Your task to perform on an android device: toggle airplane mode Image 0: 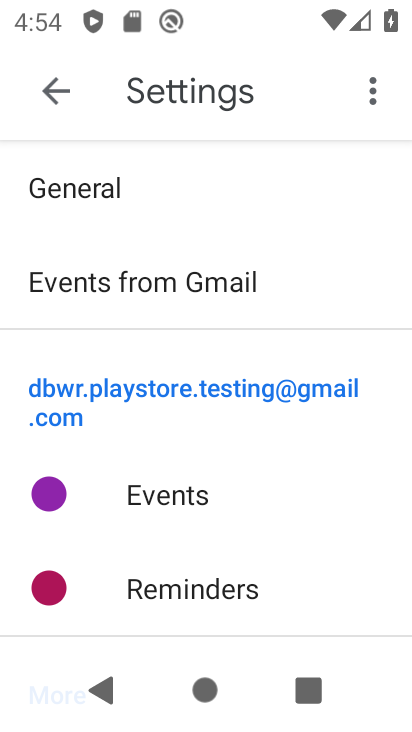
Step 0: press back button
Your task to perform on an android device: toggle airplane mode Image 1: 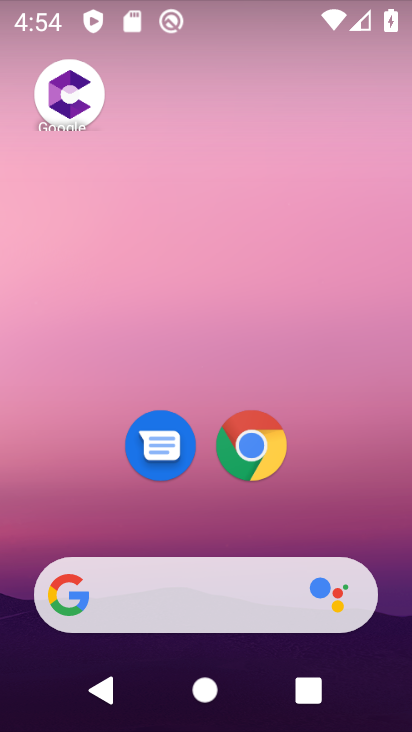
Step 1: drag from (355, 515) to (245, 155)
Your task to perform on an android device: toggle airplane mode Image 2: 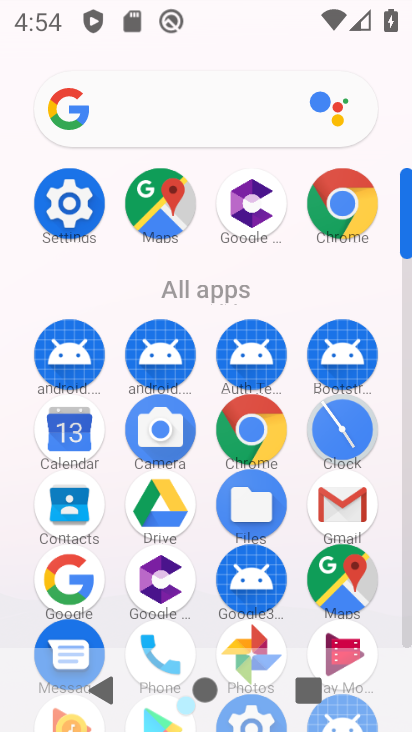
Step 2: drag from (310, 496) to (268, 236)
Your task to perform on an android device: toggle airplane mode Image 3: 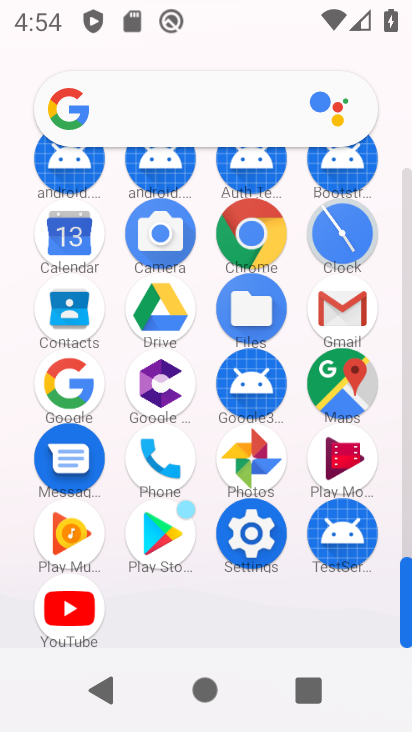
Step 3: click (259, 528)
Your task to perform on an android device: toggle airplane mode Image 4: 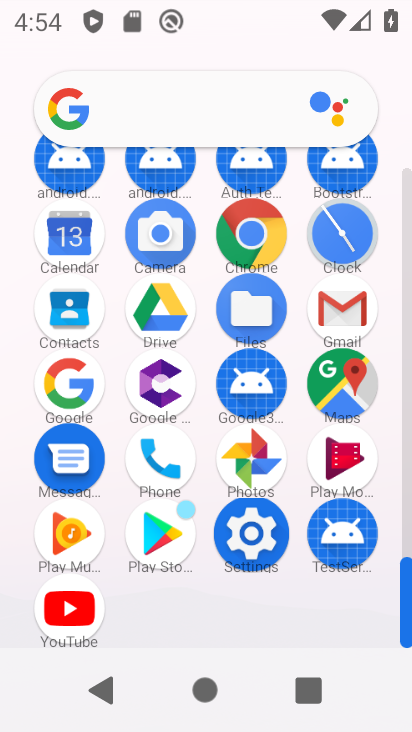
Step 4: click (259, 528)
Your task to perform on an android device: toggle airplane mode Image 5: 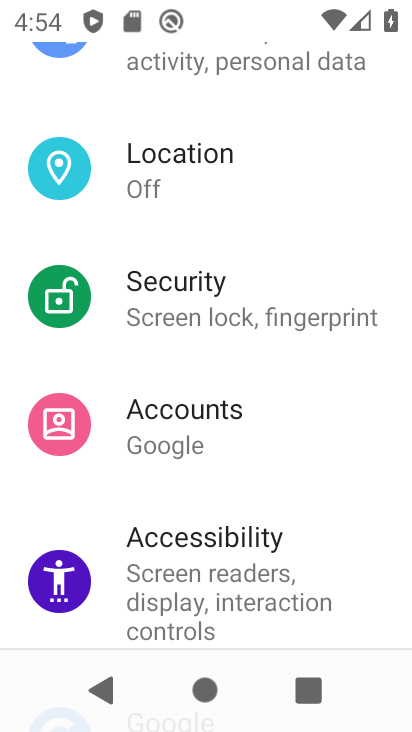
Step 5: click (259, 528)
Your task to perform on an android device: toggle airplane mode Image 6: 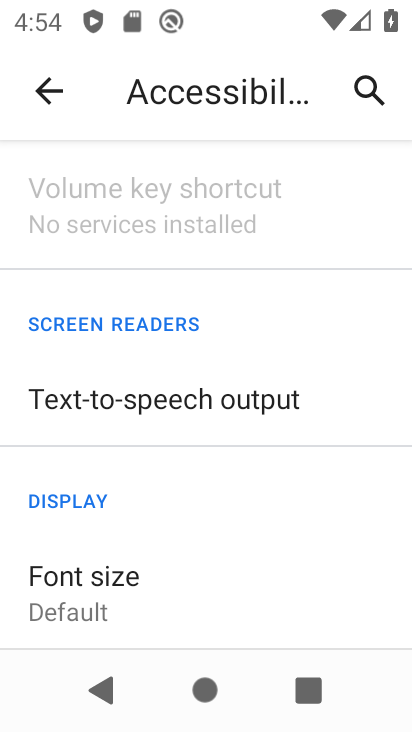
Step 6: click (45, 93)
Your task to perform on an android device: toggle airplane mode Image 7: 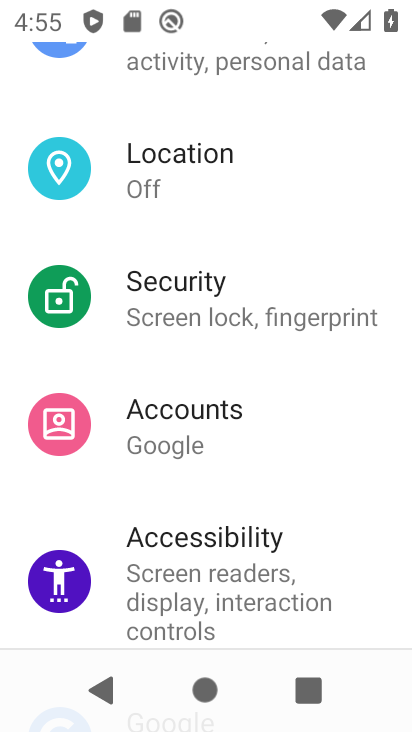
Step 7: drag from (190, 480) to (174, 91)
Your task to perform on an android device: toggle airplane mode Image 8: 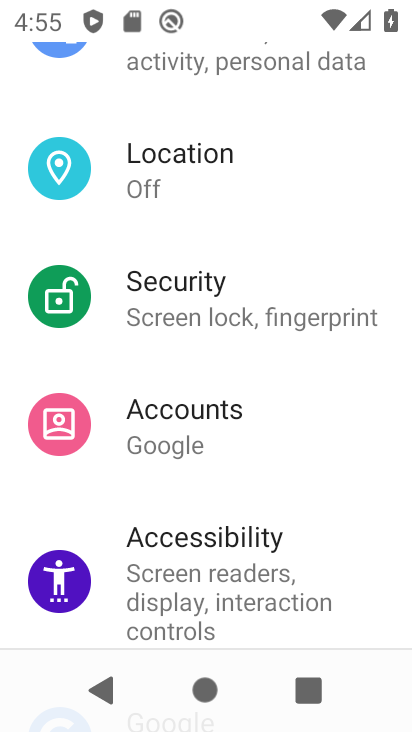
Step 8: drag from (155, 260) to (206, 720)
Your task to perform on an android device: toggle airplane mode Image 9: 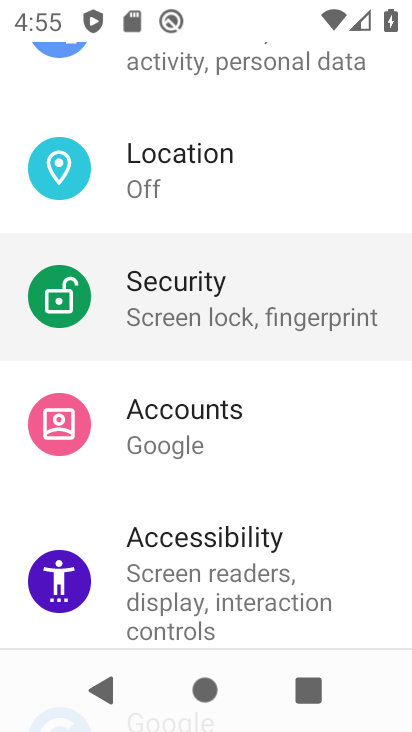
Step 9: drag from (161, 378) to (199, 661)
Your task to perform on an android device: toggle airplane mode Image 10: 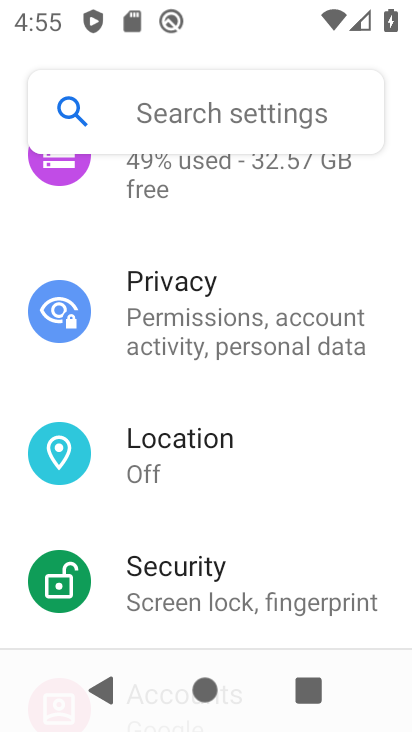
Step 10: drag from (216, 462) to (198, 190)
Your task to perform on an android device: toggle airplane mode Image 11: 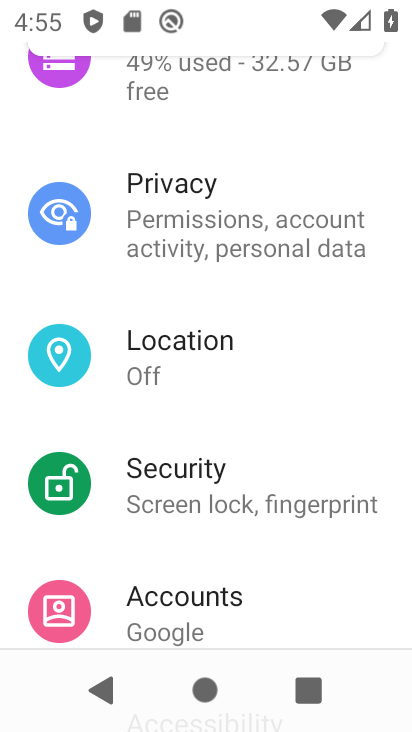
Step 11: drag from (178, 216) to (230, 420)
Your task to perform on an android device: toggle airplane mode Image 12: 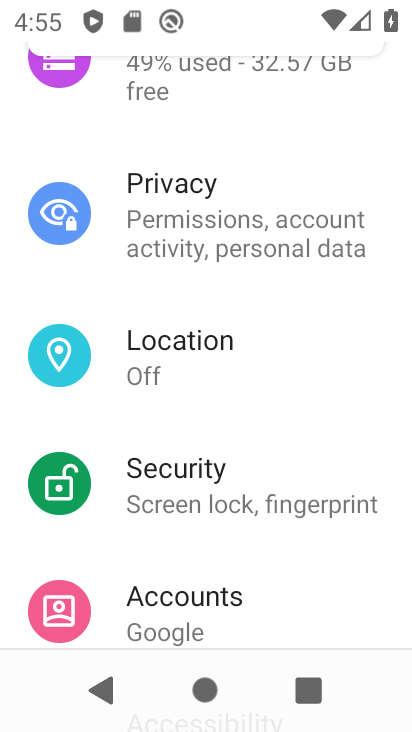
Step 12: drag from (228, 391) to (245, 544)
Your task to perform on an android device: toggle airplane mode Image 13: 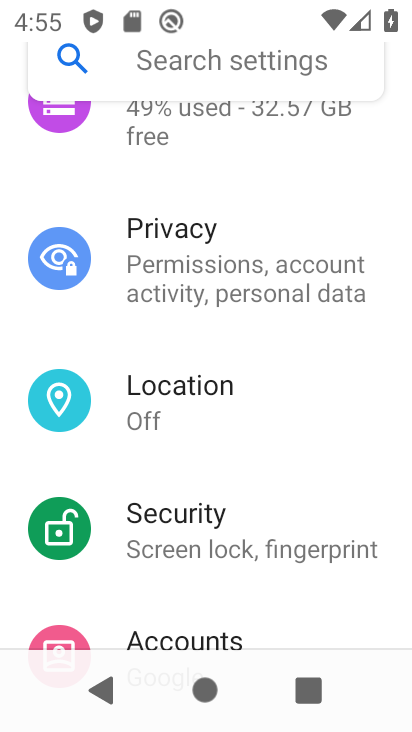
Step 13: drag from (235, 152) to (235, 638)
Your task to perform on an android device: toggle airplane mode Image 14: 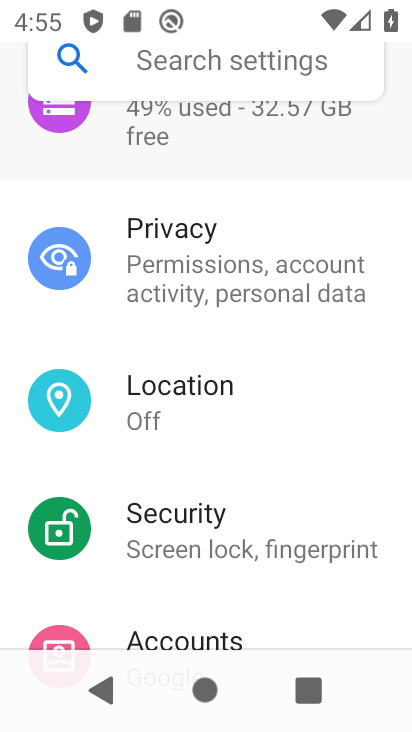
Step 14: drag from (177, 232) to (170, 674)
Your task to perform on an android device: toggle airplane mode Image 15: 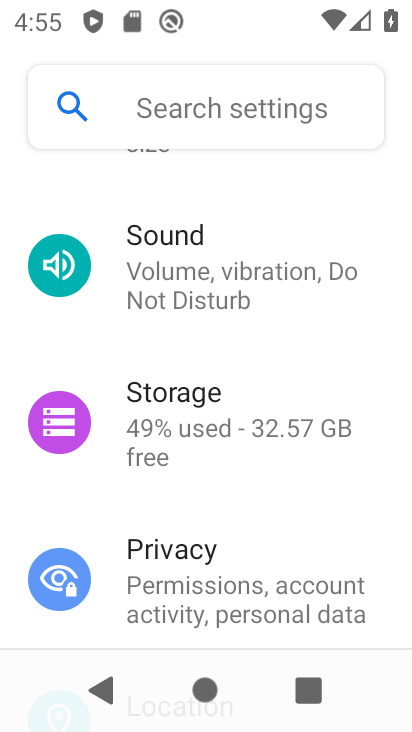
Step 15: click (102, 366)
Your task to perform on an android device: toggle airplane mode Image 16: 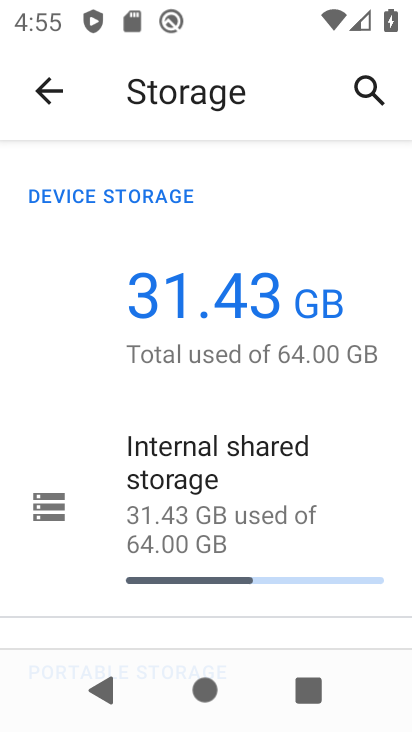
Step 16: click (53, 96)
Your task to perform on an android device: toggle airplane mode Image 17: 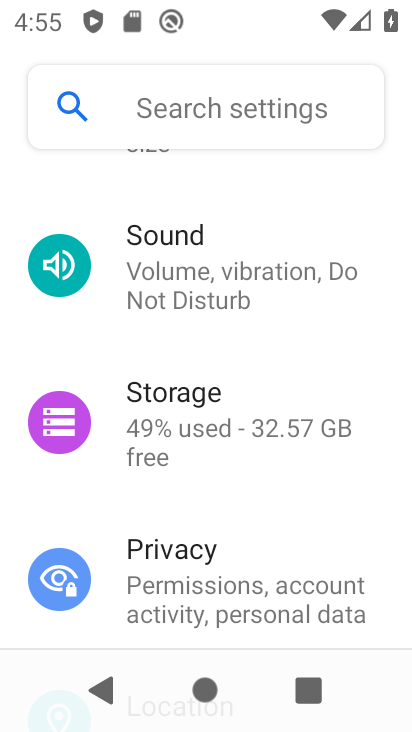
Step 17: drag from (165, 244) to (252, 697)
Your task to perform on an android device: toggle airplane mode Image 18: 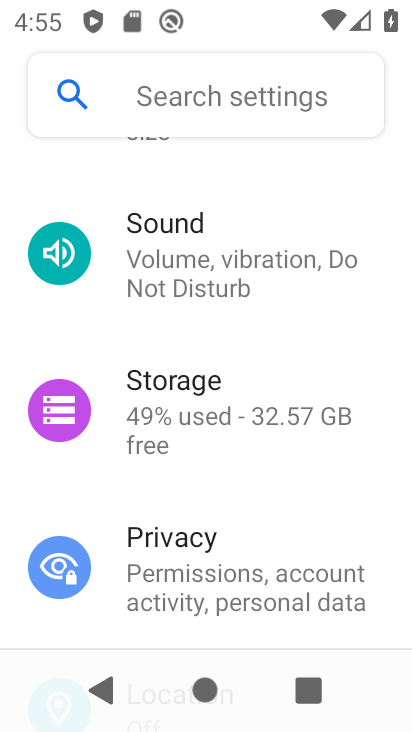
Step 18: drag from (218, 391) to (224, 668)
Your task to perform on an android device: toggle airplane mode Image 19: 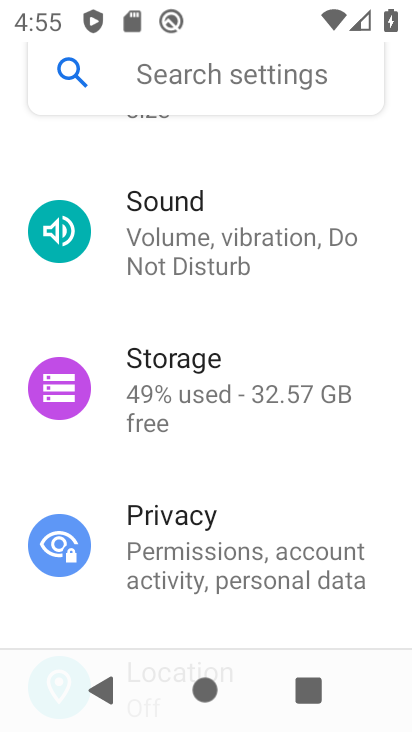
Step 19: drag from (185, 251) to (360, 630)
Your task to perform on an android device: toggle airplane mode Image 20: 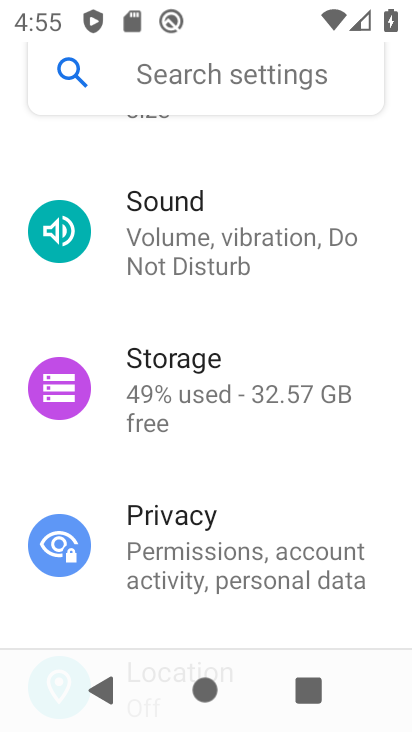
Step 20: drag from (349, 537) to (358, 600)
Your task to perform on an android device: toggle airplane mode Image 21: 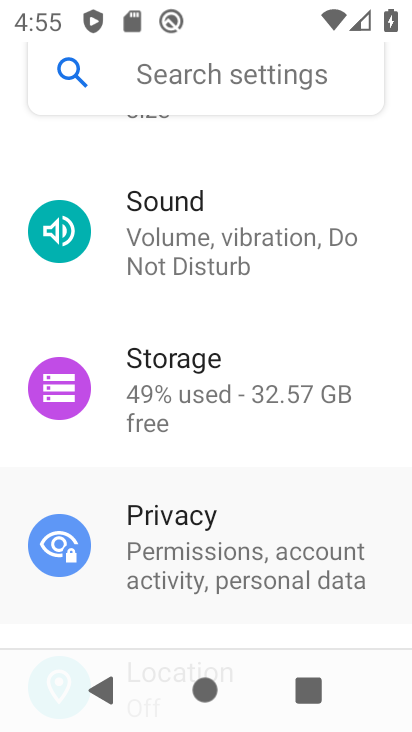
Step 21: click (329, 567)
Your task to perform on an android device: toggle airplane mode Image 22: 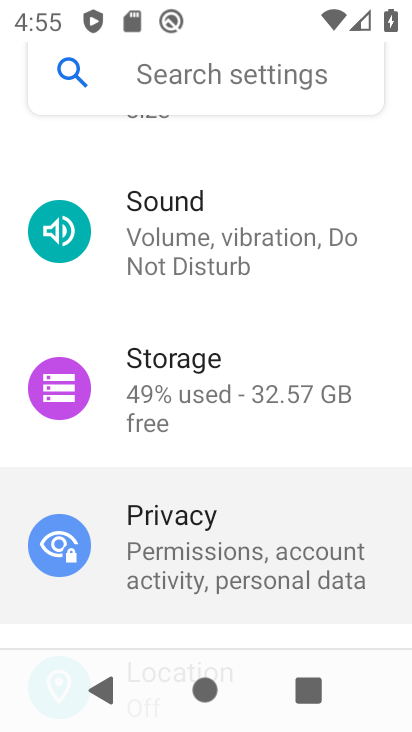
Step 22: drag from (233, 276) to (227, 425)
Your task to perform on an android device: toggle airplane mode Image 23: 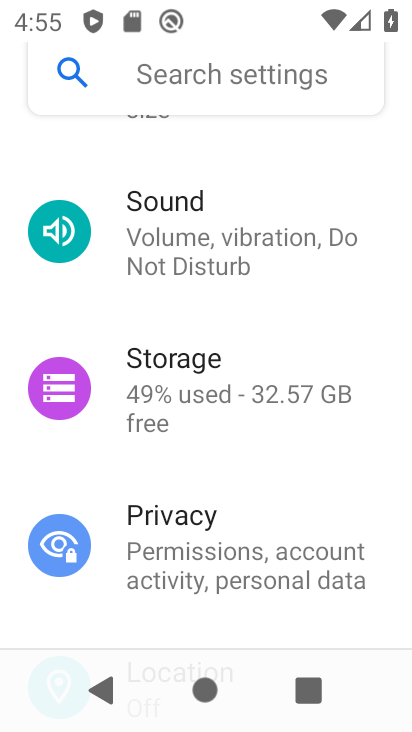
Step 23: click (224, 585)
Your task to perform on an android device: toggle airplane mode Image 24: 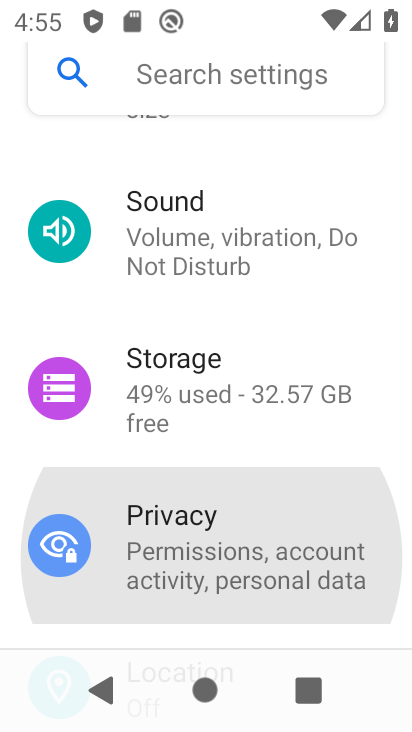
Step 24: drag from (219, 339) to (231, 454)
Your task to perform on an android device: toggle airplane mode Image 25: 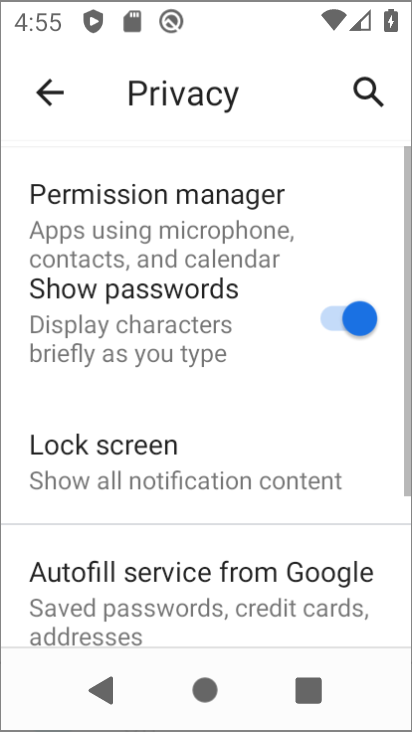
Step 25: drag from (181, 309) to (248, 418)
Your task to perform on an android device: toggle airplane mode Image 26: 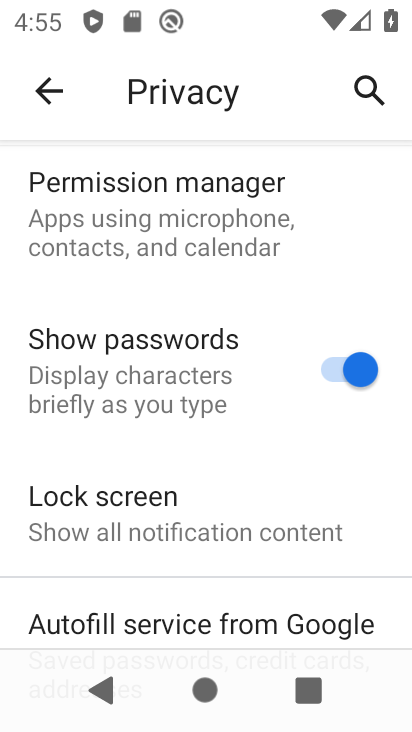
Step 26: click (45, 104)
Your task to perform on an android device: toggle airplane mode Image 27: 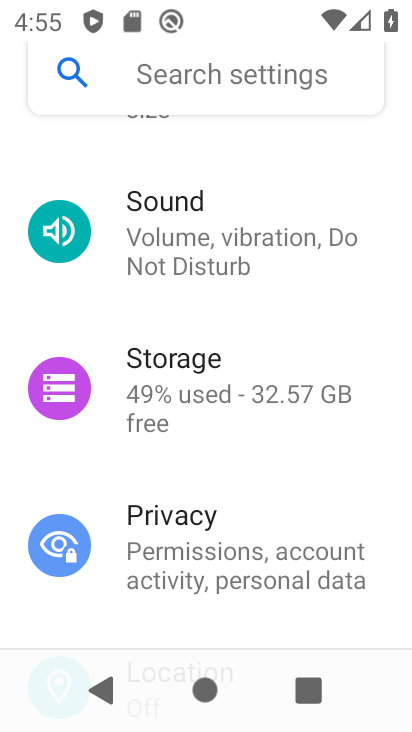
Step 27: drag from (201, 243) to (215, 527)
Your task to perform on an android device: toggle airplane mode Image 28: 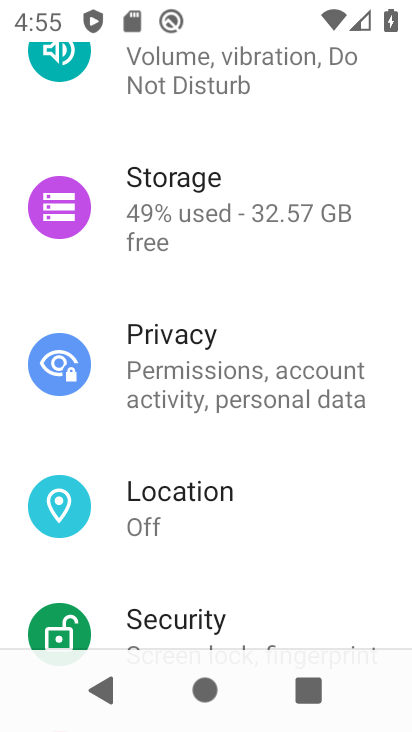
Step 28: drag from (279, 494) to (254, 615)
Your task to perform on an android device: toggle airplane mode Image 29: 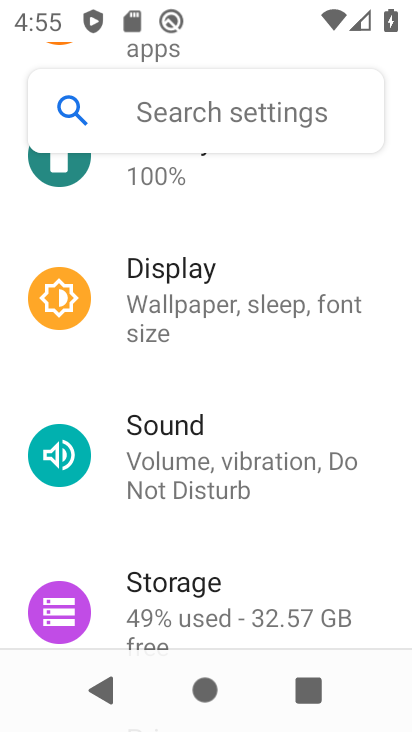
Step 29: drag from (256, 639) to (257, 469)
Your task to perform on an android device: toggle airplane mode Image 30: 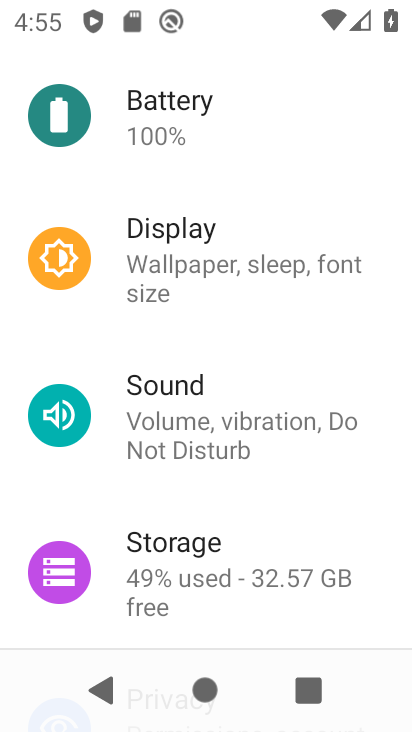
Step 30: drag from (239, 368) to (219, 547)
Your task to perform on an android device: toggle airplane mode Image 31: 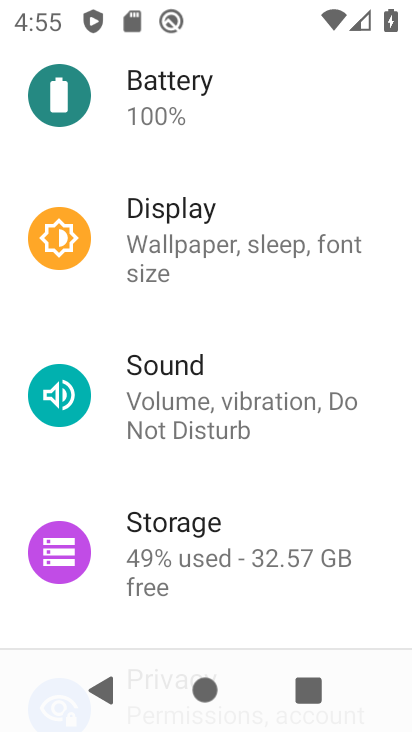
Step 31: drag from (172, 180) to (221, 512)
Your task to perform on an android device: toggle airplane mode Image 32: 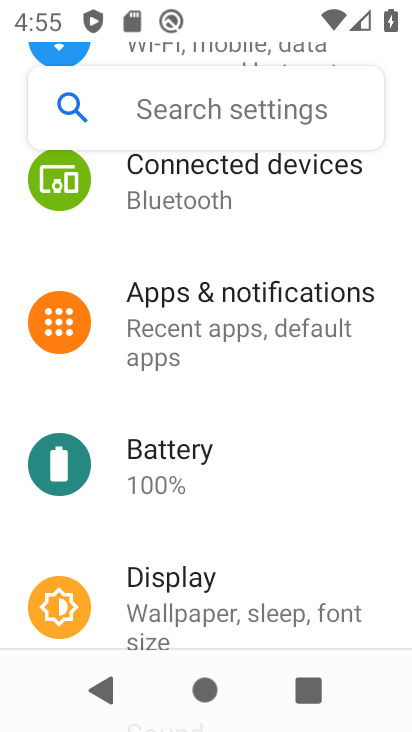
Step 32: drag from (202, 223) to (258, 521)
Your task to perform on an android device: toggle airplane mode Image 33: 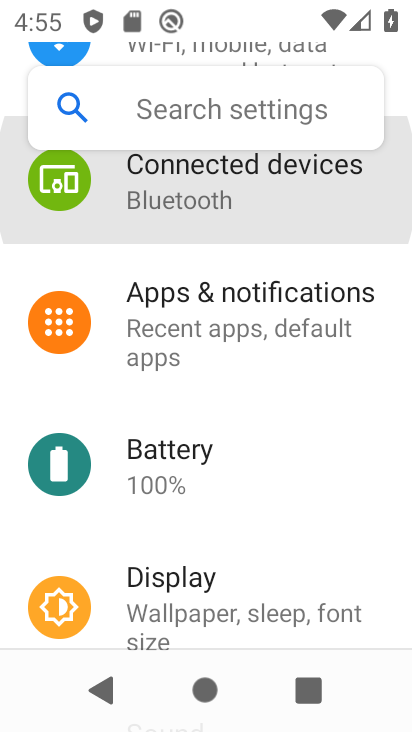
Step 33: drag from (192, 275) to (243, 557)
Your task to perform on an android device: toggle airplane mode Image 34: 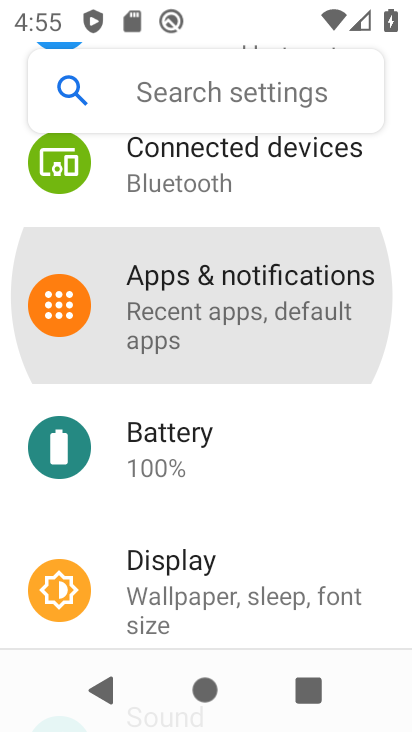
Step 34: click (202, 249)
Your task to perform on an android device: toggle airplane mode Image 35: 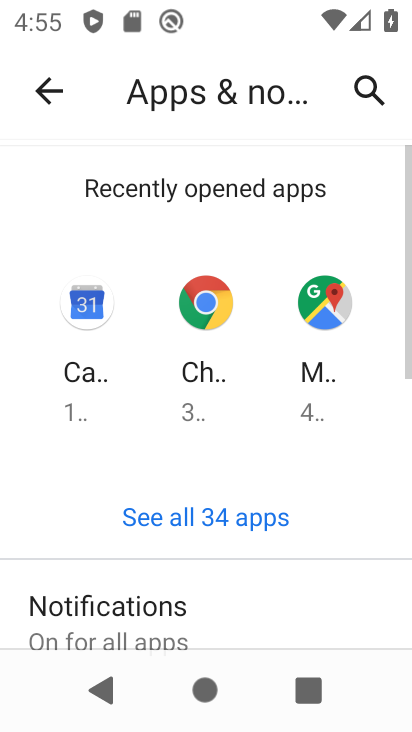
Step 35: click (50, 93)
Your task to perform on an android device: toggle airplane mode Image 36: 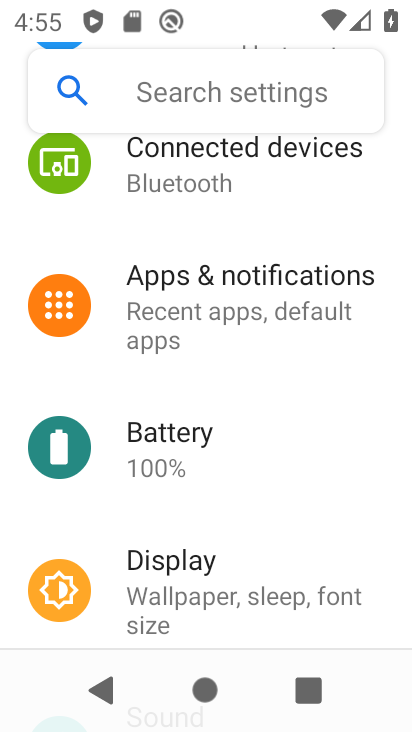
Step 36: drag from (221, 253) to (267, 484)
Your task to perform on an android device: toggle airplane mode Image 37: 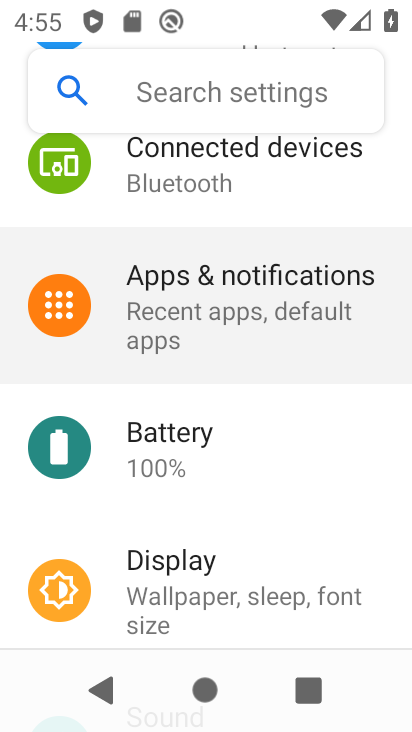
Step 37: drag from (224, 270) to (251, 492)
Your task to perform on an android device: toggle airplane mode Image 38: 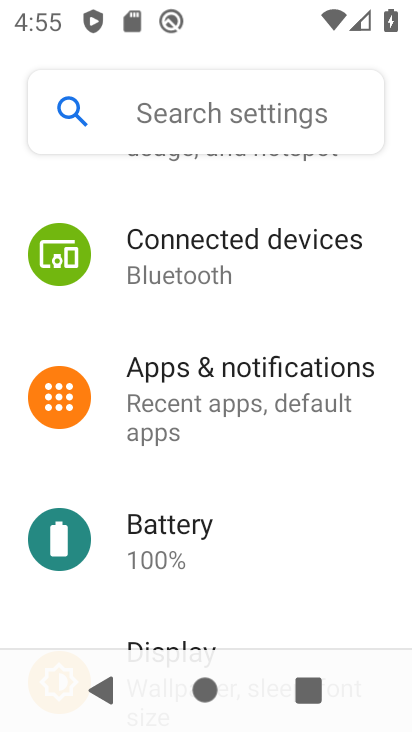
Step 38: drag from (250, 358) to (279, 550)
Your task to perform on an android device: toggle airplane mode Image 39: 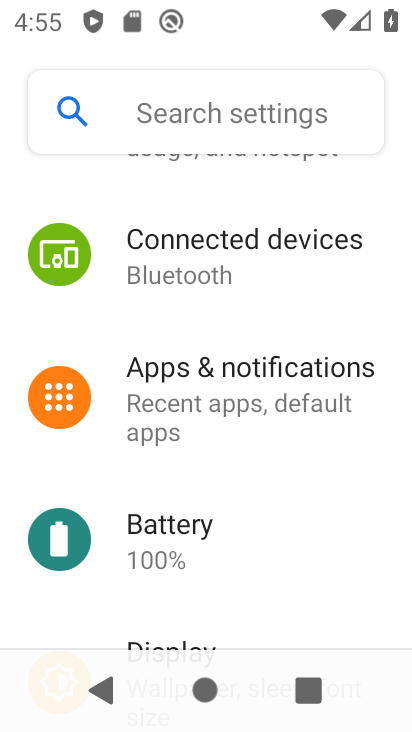
Step 39: drag from (199, 203) to (255, 477)
Your task to perform on an android device: toggle airplane mode Image 40: 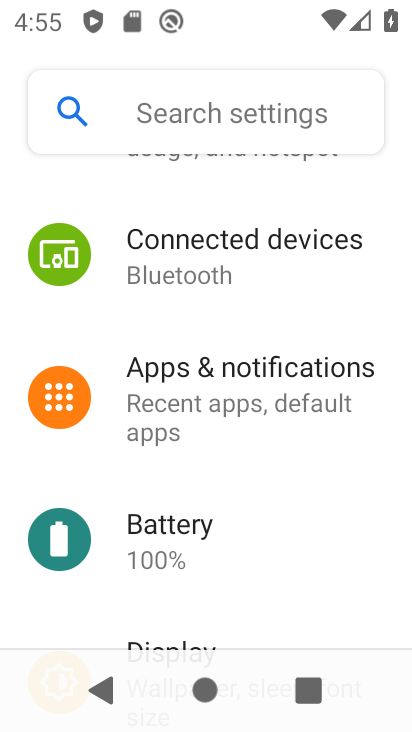
Step 40: drag from (210, 289) to (234, 499)
Your task to perform on an android device: toggle airplane mode Image 41: 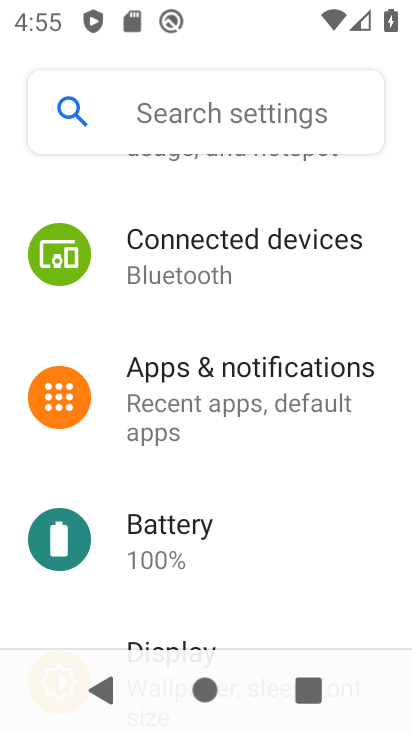
Step 41: drag from (192, 360) to (229, 600)
Your task to perform on an android device: toggle airplane mode Image 42: 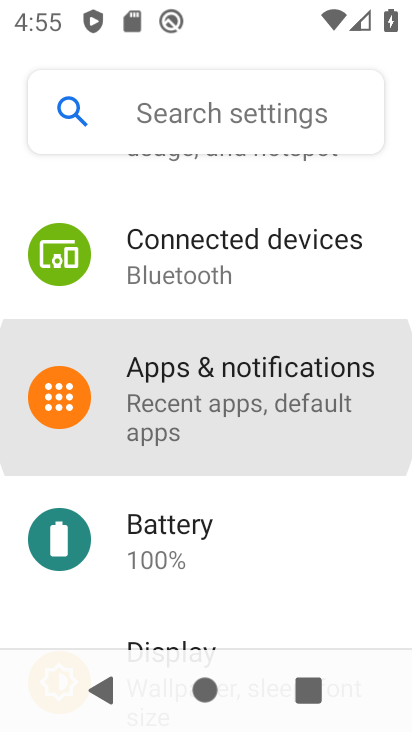
Step 42: drag from (173, 253) to (215, 568)
Your task to perform on an android device: toggle airplane mode Image 43: 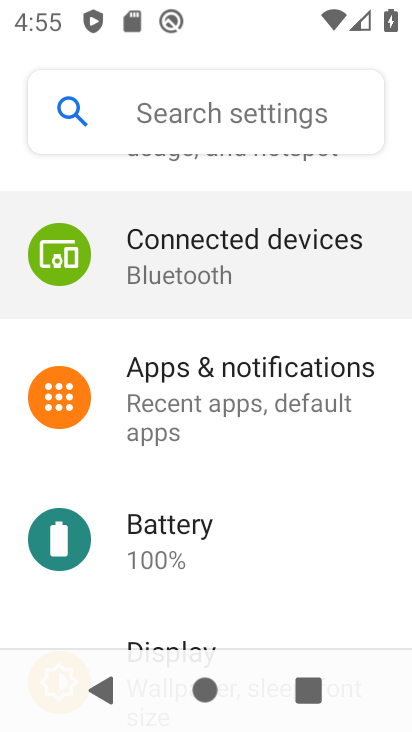
Step 43: drag from (206, 333) to (239, 645)
Your task to perform on an android device: toggle airplane mode Image 44: 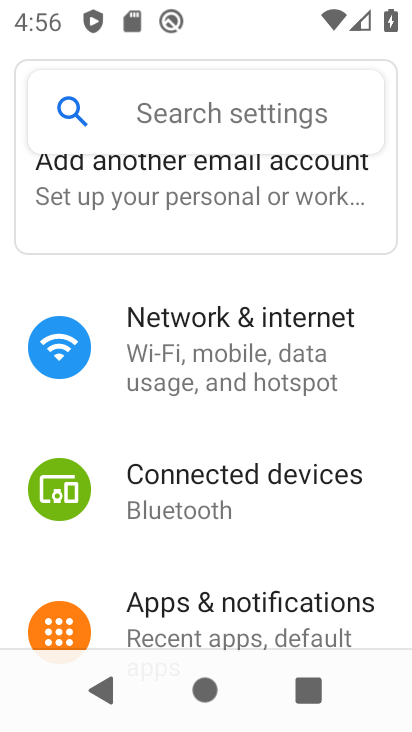
Step 44: drag from (189, 279) to (194, 587)
Your task to perform on an android device: toggle airplane mode Image 45: 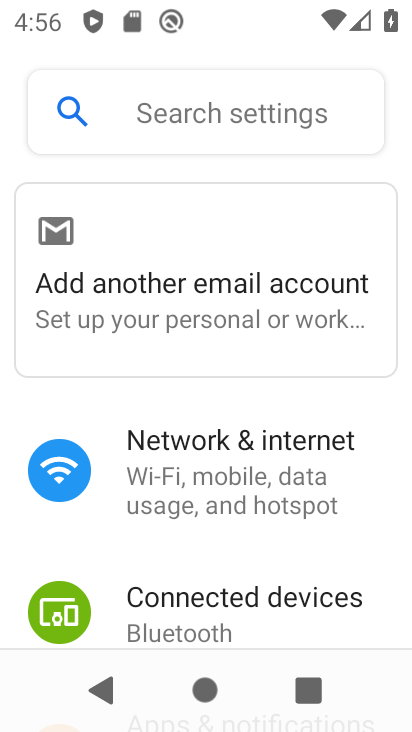
Step 45: click (245, 349)
Your task to perform on an android device: toggle airplane mode Image 46: 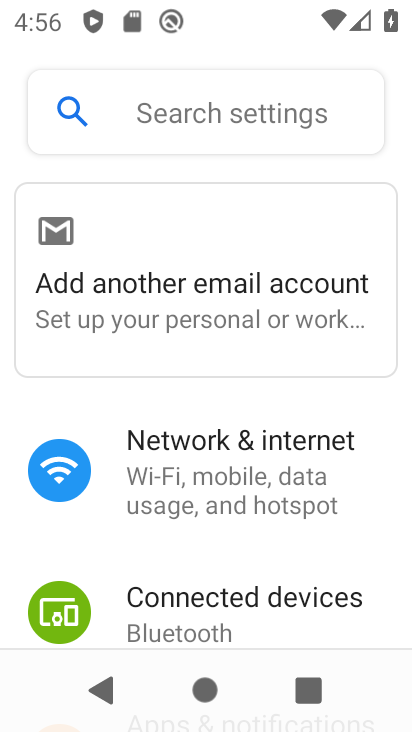
Step 46: click (248, 472)
Your task to perform on an android device: toggle airplane mode Image 47: 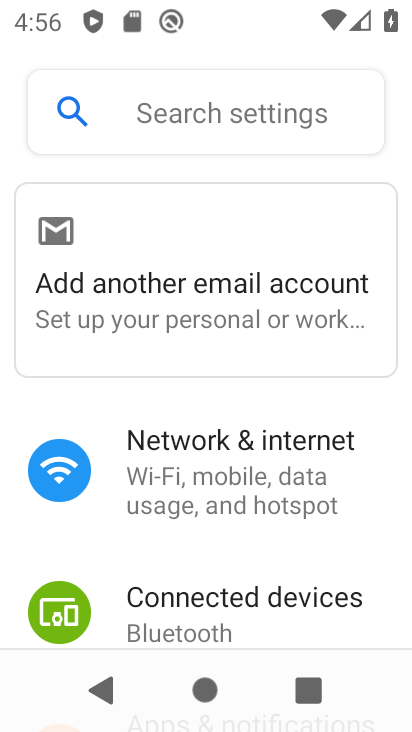
Step 47: click (248, 472)
Your task to perform on an android device: toggle airplane mode Image 48: 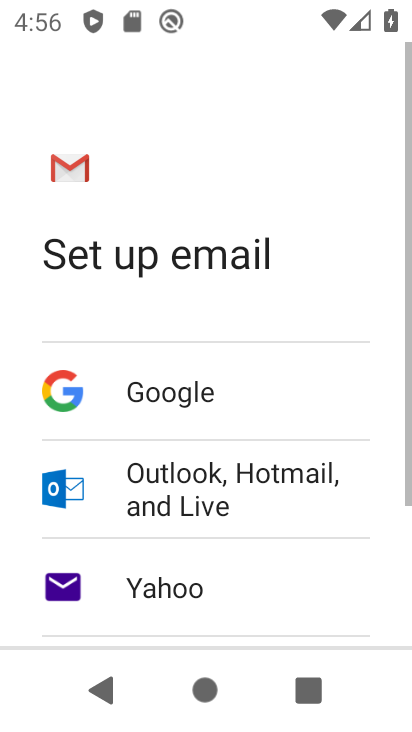
Step 48: task complete